Your task to perform on an android device: turn on airplane mode Image 0: 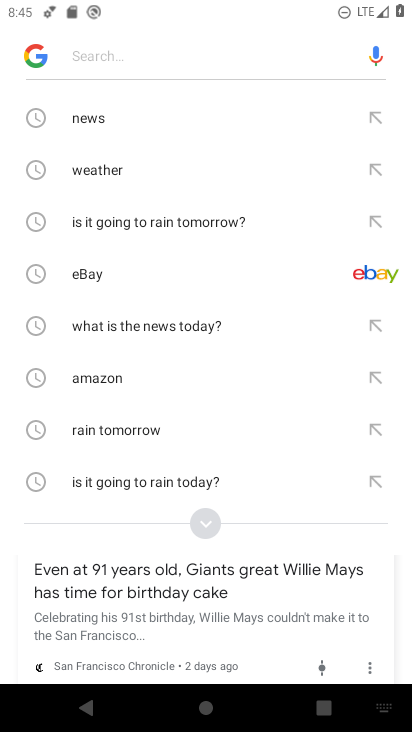
Step 0: press home button
Your task to perform on an android device: turn on airplane mode Image 1: 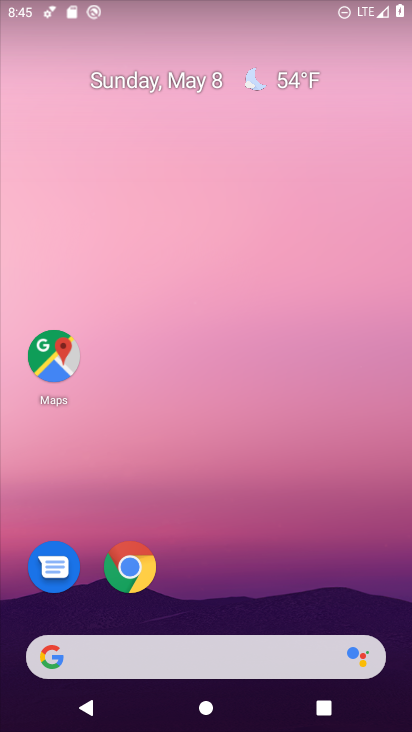
Step 1: drag from (325, 489) to (309, 30)
Your task to perform on an android device: turn on airplane mode Image 2: 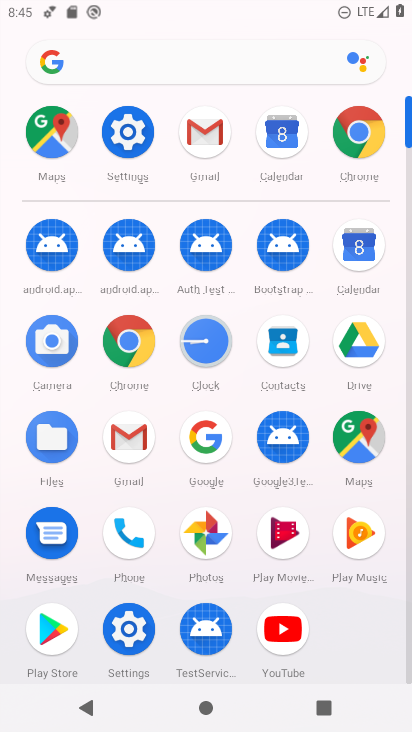
Step 2: click (123, 124)
Your task to perform on an android device: turn on airplane mode Image 3: 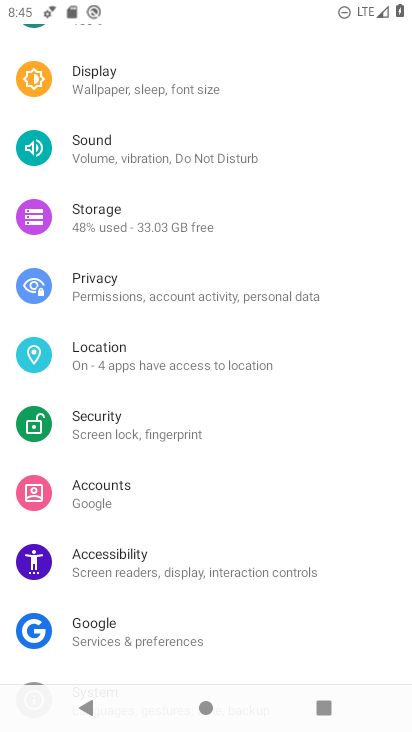
Step 3: click (147, 600)
Your task to perform on an android device: turn on airplane mode Image 4: 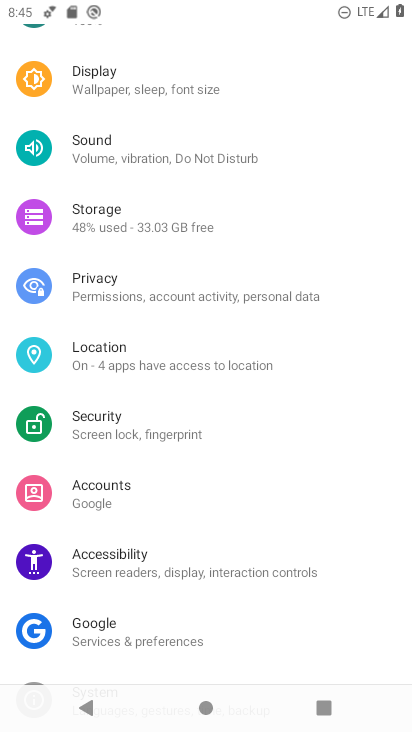
Step 4: drag from (233, 184) to (172, 603)
Your task to perform on an android device: turn on airplane mode Image 5: 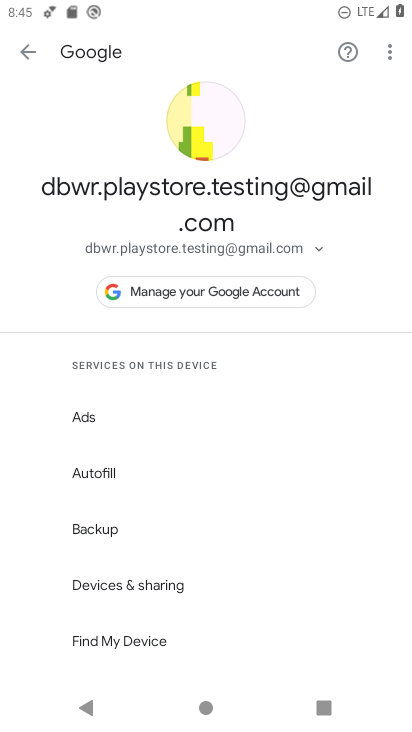
Step 5: click (93, 722)
Your task to perform on an android device: turn on airplane mode Image 6: 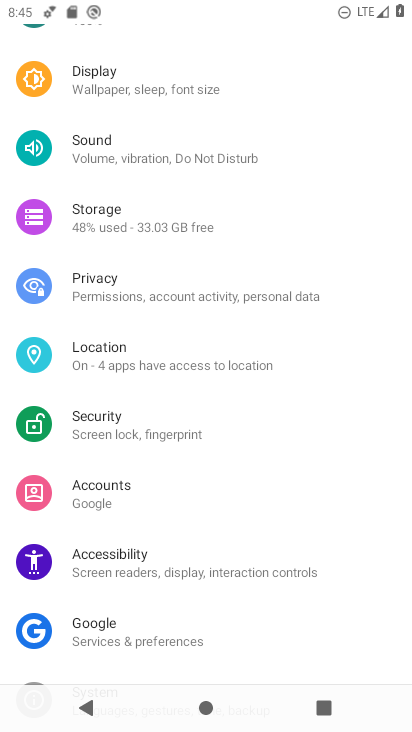
Step 6: drag from (282, 178) to (231, 560)
Your task to perform on an android device: turn on airplane mode Image 7: 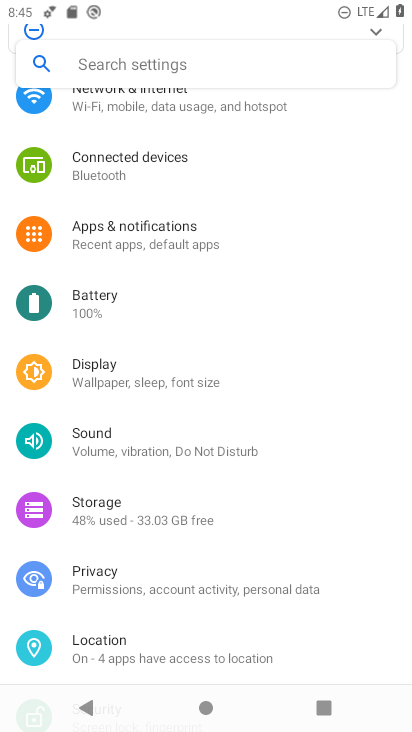
Step 7: drag from (279, 165) to (178, 600)
Your task to perform on an android device: turn on airplane mode Image 8: 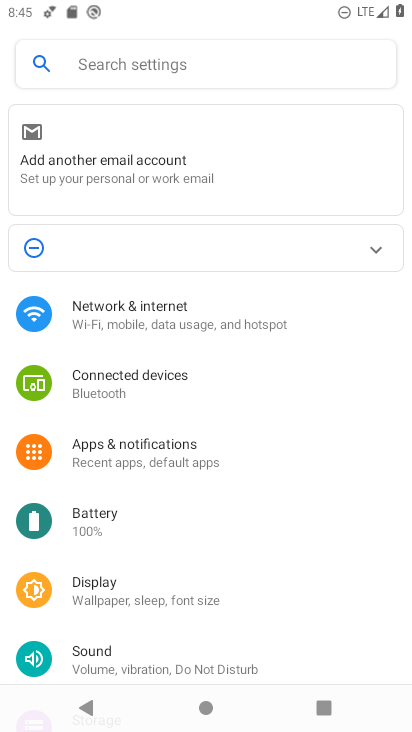
Step 8: click (220, 311)
Your task to perform on an android device: turn on airplane mode Image 9: 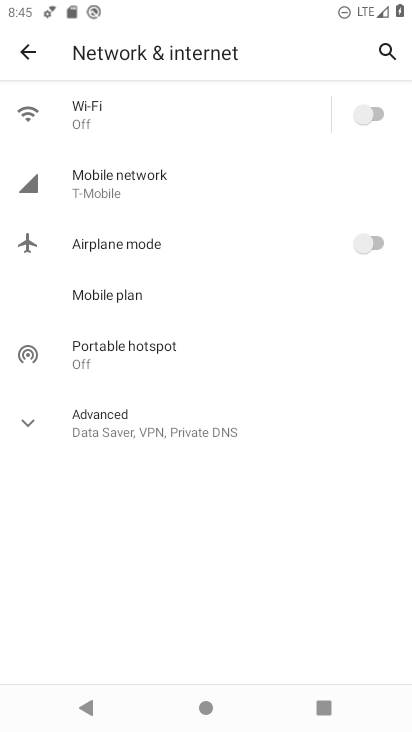
Step 9: click (372, 242)
Your task to perform on an android device: turn on airplane mode Image 10: 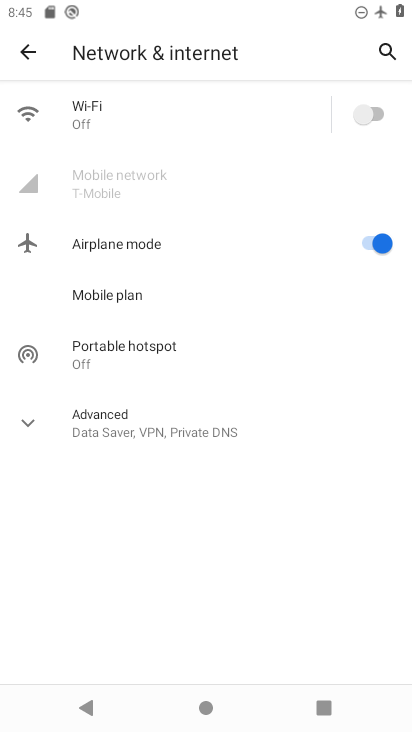
Step 10: task complete